Your task to perform on an android device: Is it going to rain this weekend? Image 0: 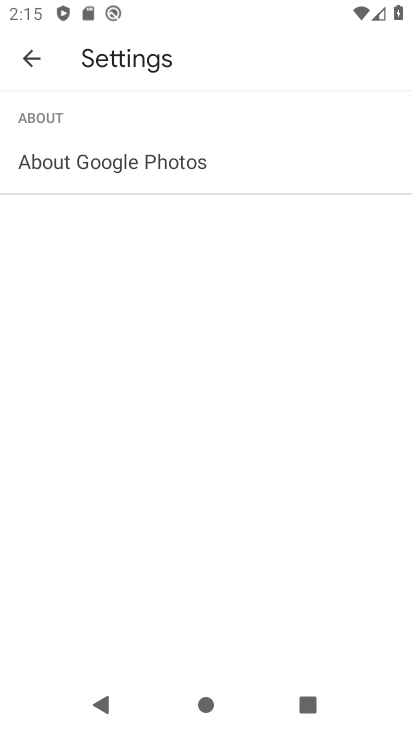
Step 0: press home button
Your task to perform on an android device: Is it going to rain this weekend? Image 1: 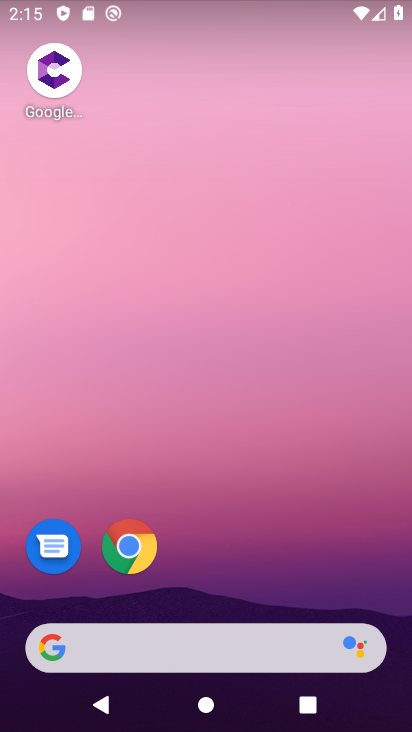
Step 1: click (165, 651)
Your task to perform on an android device: Is it going to rain this weekend? Image 2: 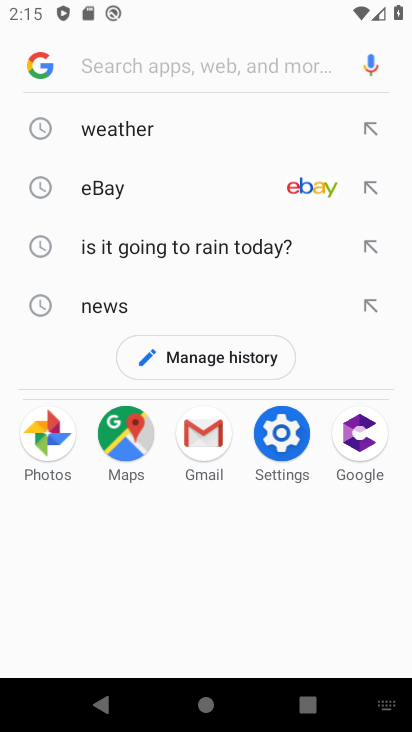
Step 2: click (150, 84)
Your task to perform on an android device: Is it going to rain this weekend? Image 3: 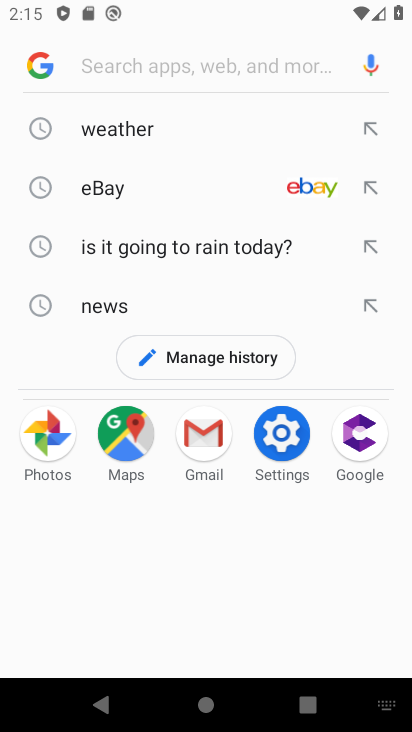
Step 3: click (171, 135)
Your task to perform on an android device: Is it going to rain this weekend? Image 4: 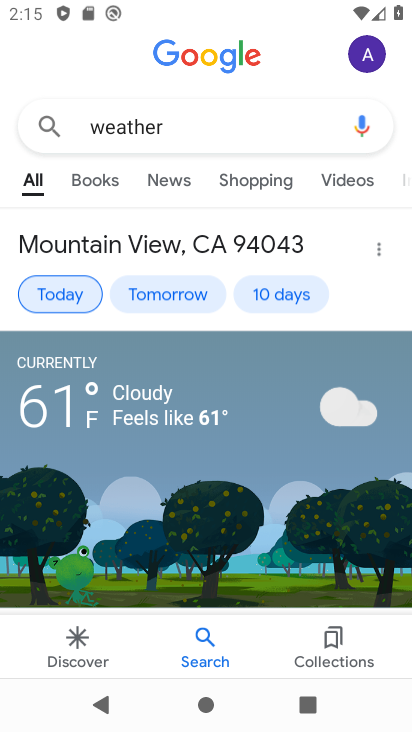
Step 4: click (154, 286)
Your task to perform on an android device: Is it going to rain this weekend? Image 5: 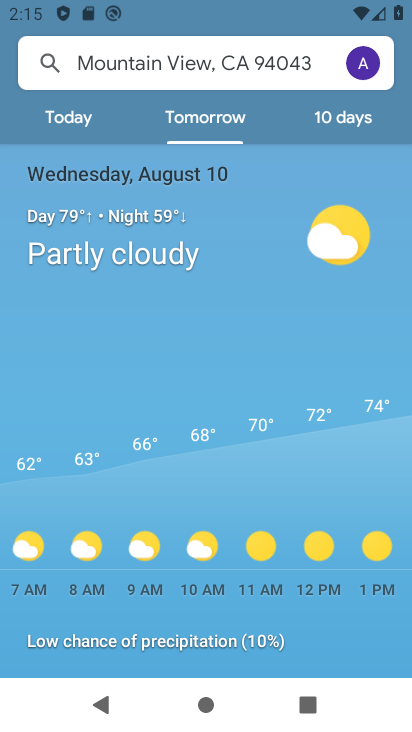
Step 5: task complete